Your task to perform on an android device: Open Youtube and go to the subscriptions tab Image 0: 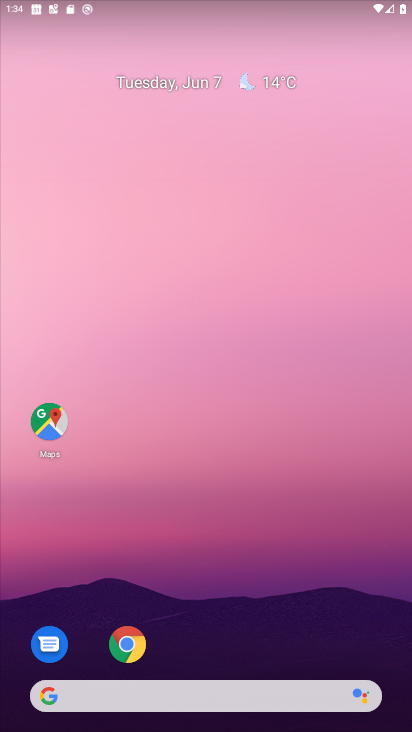
Step 0: drag from (168, 629) to (207, 4)
Your task to perform on an android device: Open Youtube and go to the subscriptions tab Image 1: 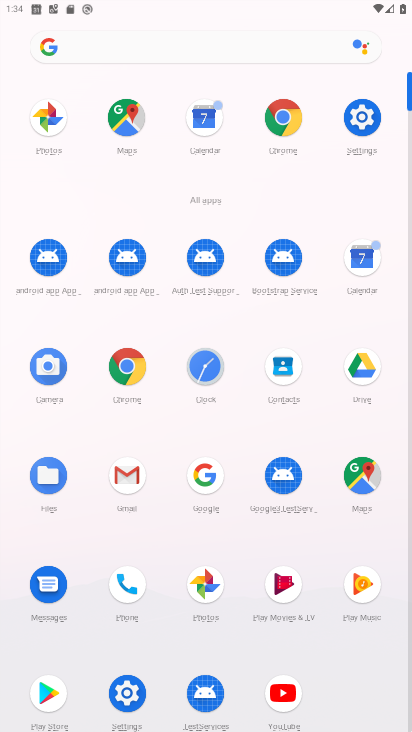
Step 1: click (279, 692)
Your task to perform on an android device: Open Youtube and go to the subscriptions tab Image 2: 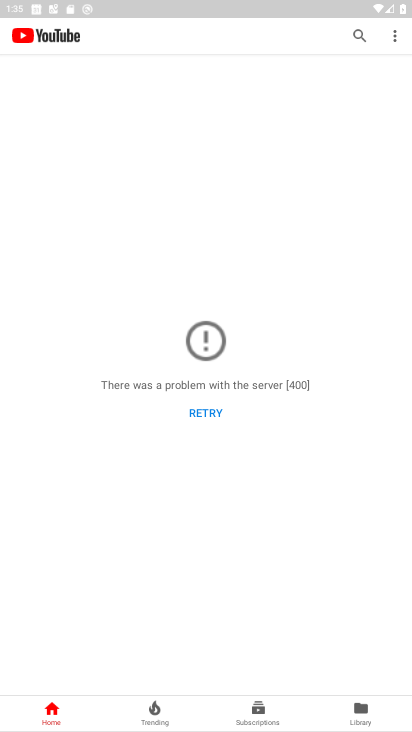
Step 2: click (262, 719)
Your task to perform on an android device: Open Youtube and go to the subscriptions tab Image 3: 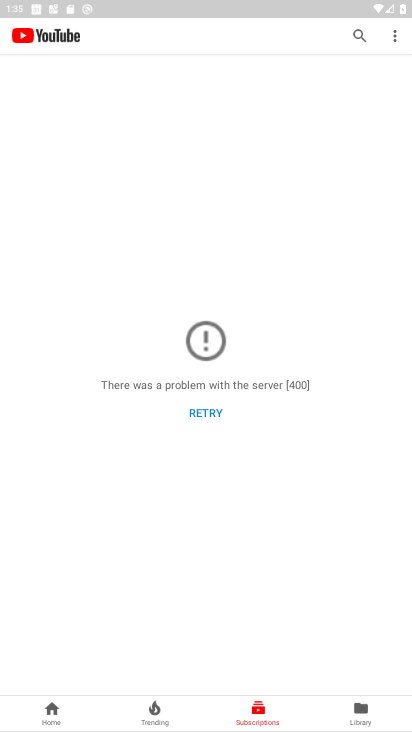
Step 3: task complete